Your task to perform on an android device: Go to settings Image 0: 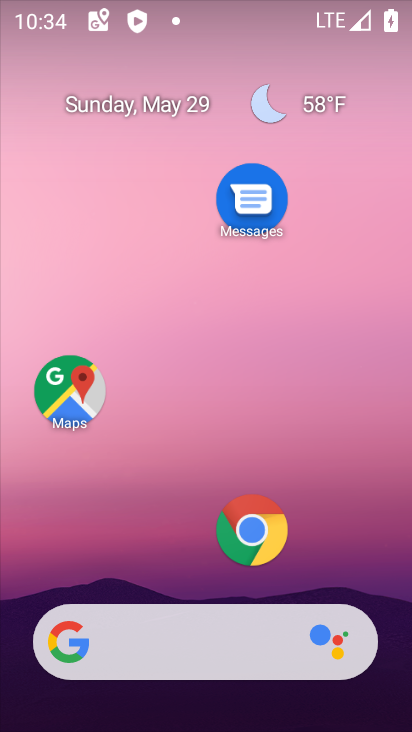
Step 0: drag from (172, 571) to (254, 26)
Your task to perform on an android device: Go to settings Image 1: 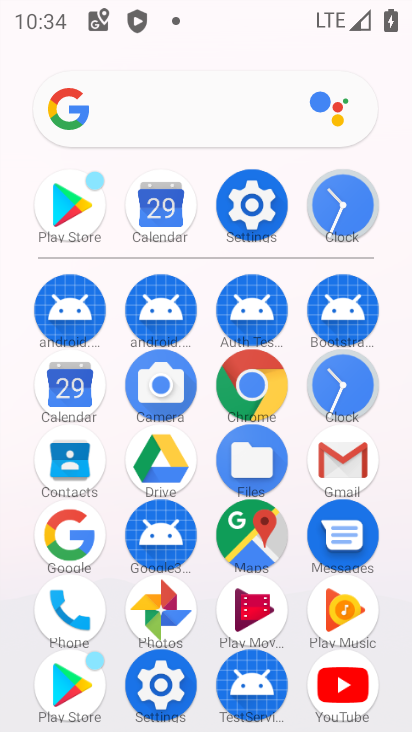
Step 1: click (258, 208)
Your task to perform on an android device: Go to settings Image 2: 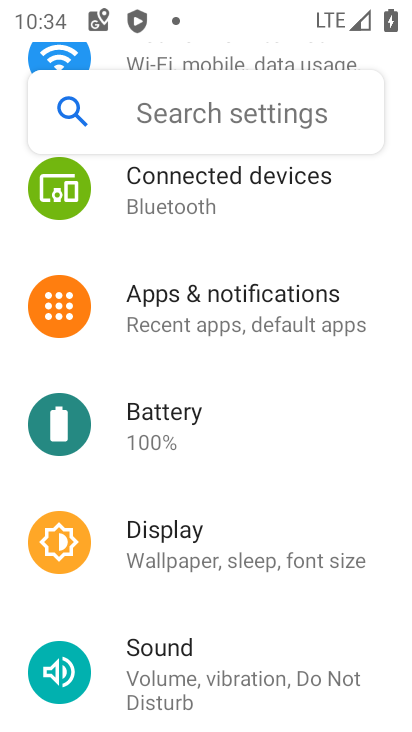
Step 2: task complete